Your task to perform on an android device: change your default location settings in chrome Image 0: 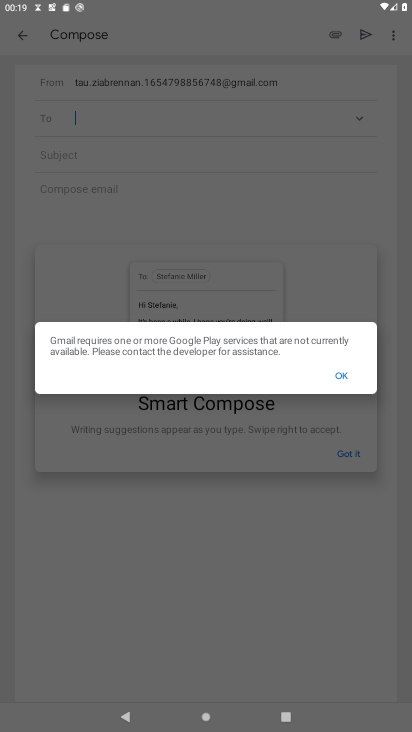
Step 0: press home button
Your task to perform on an android device: change your default location settings in chrome Image 1: 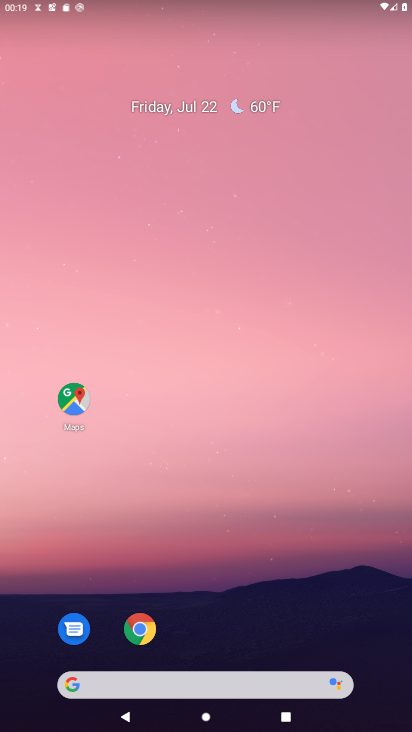
Step 1: drag from (214, 639) to (264, 190)
Your task to perform on an android device: change your default location settings in chrome Image 2: 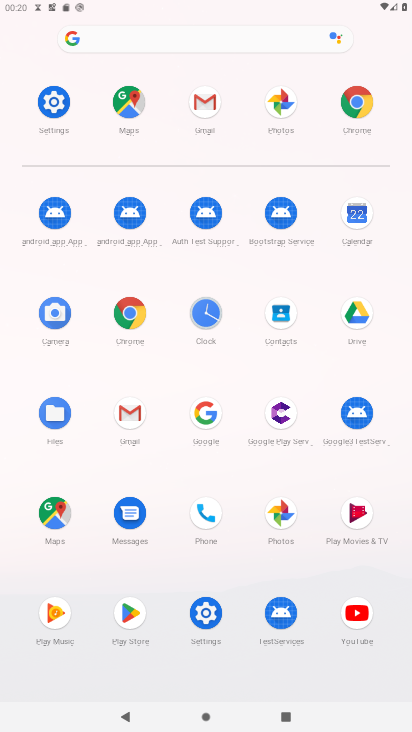
Step 2: click (357, 99)
Your task to perform on an android device: change your default location settings in chrome Image 3: 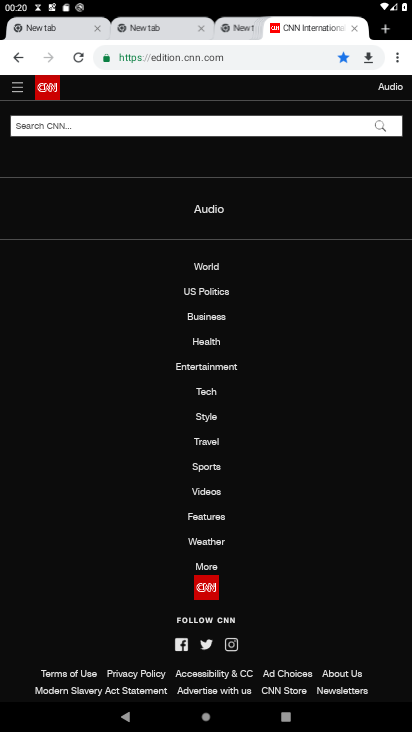
Step 3: click (400, 57)
Your task to perform on an android device: change your default location settings in chrome Image 4: 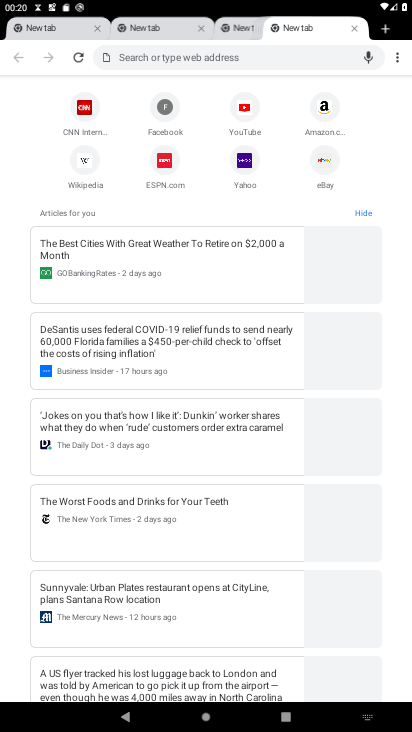
Step 4: click (400, 57)
Your task to perform on an android device: change your default location settings in chrome Image 5: 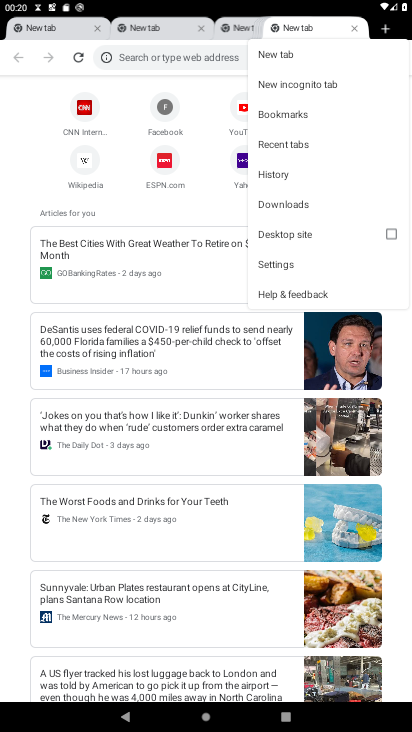
Step 5: click (294, 270)
Your task to perform on an android device: change your default location settings in chrome Image 6: 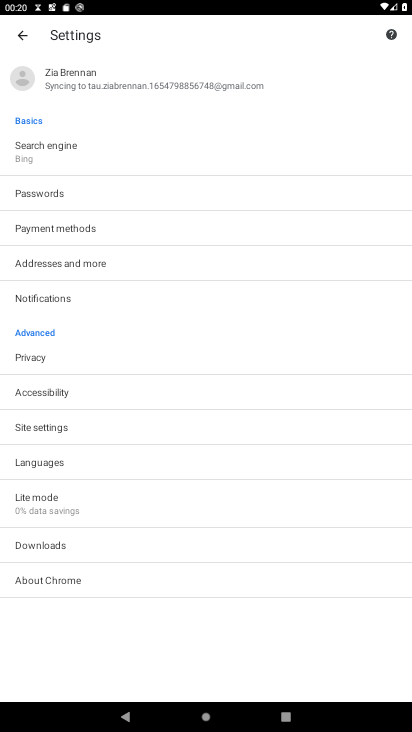
Step 6: click (48, 137)
Your task to perform on an android device: change your default location settings in chrome Image 7: 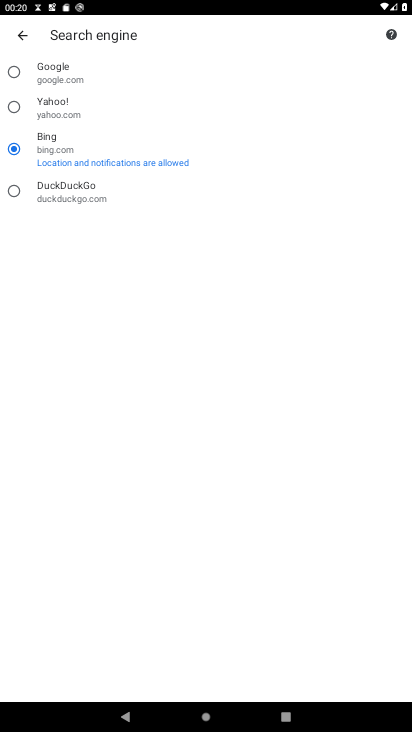
Step 7: click (62, 95)
Your task to perform on an android device: change your default location settings in chrome Image 8: 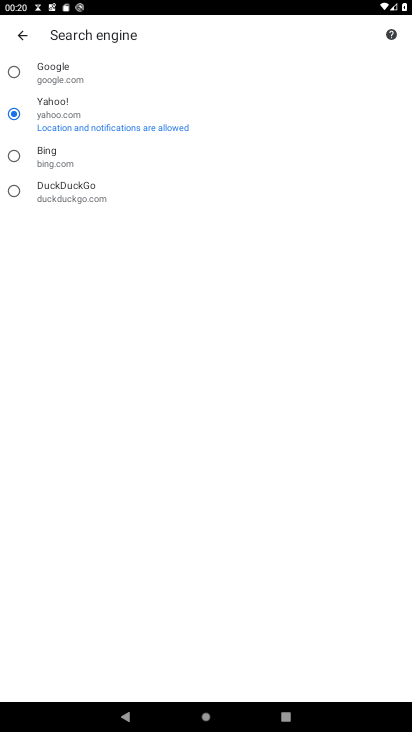
Step 8: task complete